Your task to perform on an android device: delete the emails in spam in the gmail app Image 0: 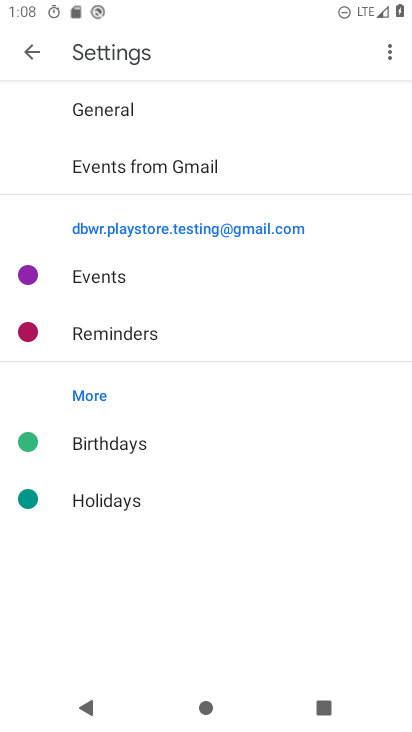
Step 0: press home button
Your task to perform on an android device: delete the emails in spam in the gmail app Image 1: 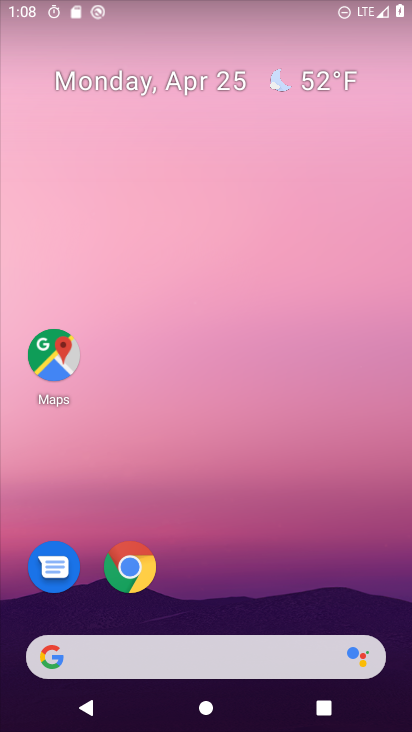
Step 1: drag from (244, 556) to (224, 43)
Your task to perform on an android device: delete the emails in spam in the gmail app Image 2: 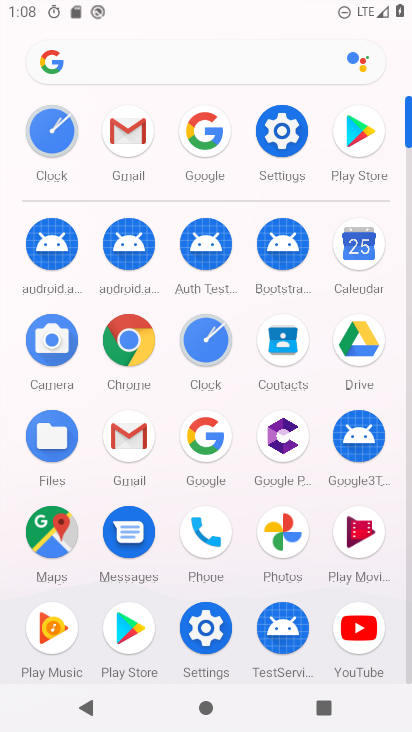
Step 2: click (143, 132)
Your task to perform on an android device: delete the emails in spam in the gmail app Image 3: 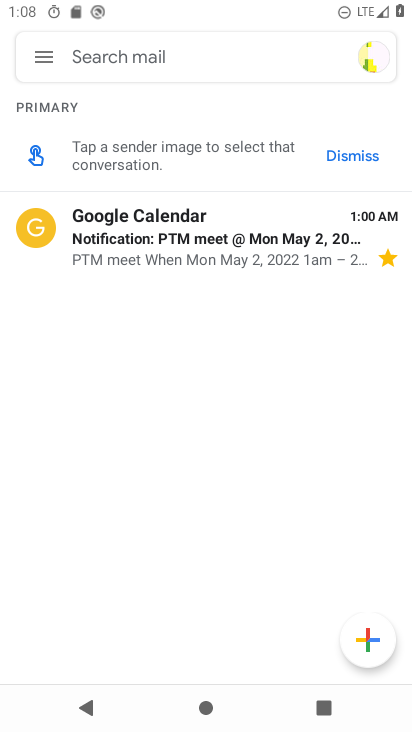
Step 3: click (41, 55)
Your task to perform on an android device: delete the emails in spam in the gmail app Image 4: 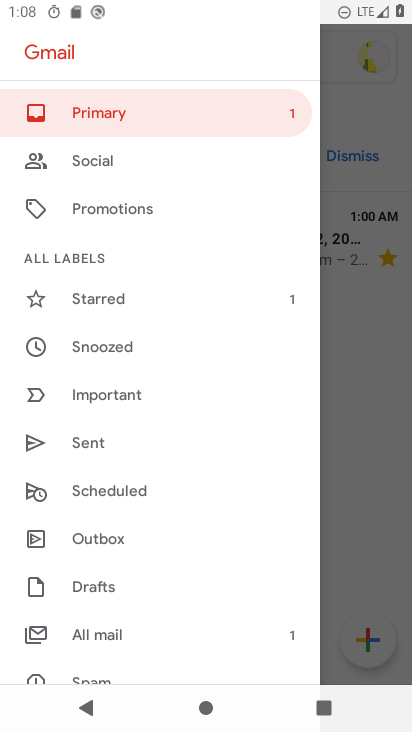
Step 4: drag from (192, 601) to (224, 275)
Your task to perform on an android device: delete the emails in spam in the gmail app Image 5: 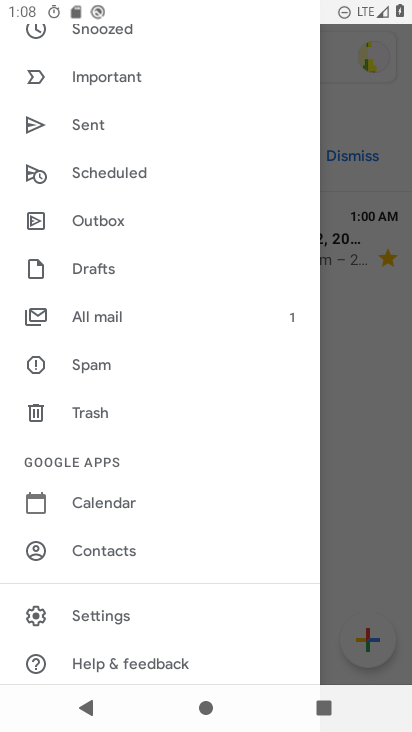
Step 5: click (152, 362)
Your task to perform on an android device: delete the emails in spam in the gmail app Image 6: 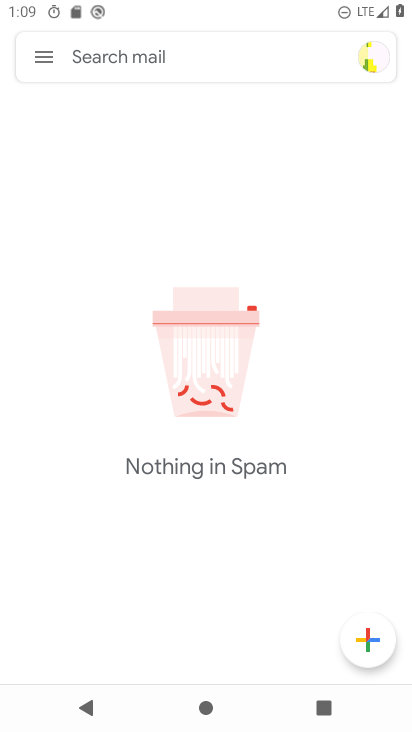
Step 6: task complete